Your task to perform on an android device: make emails show in primary in the gmail app Image 0: 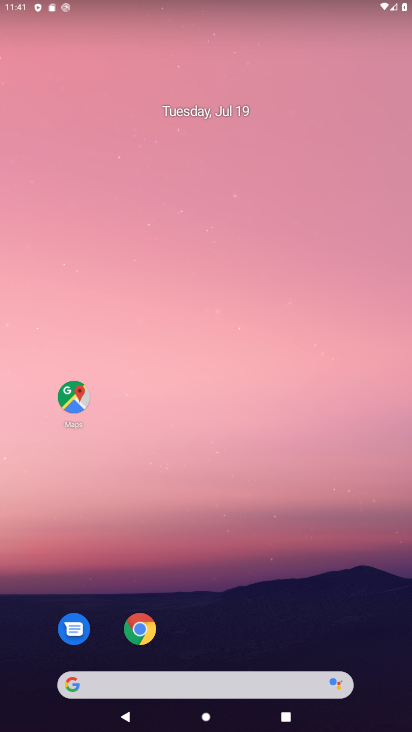
Step 0: drag from (212, 602) to (218, 160)
Your task to perform on an android device: make emails show in primary in the gmail app Image 1: 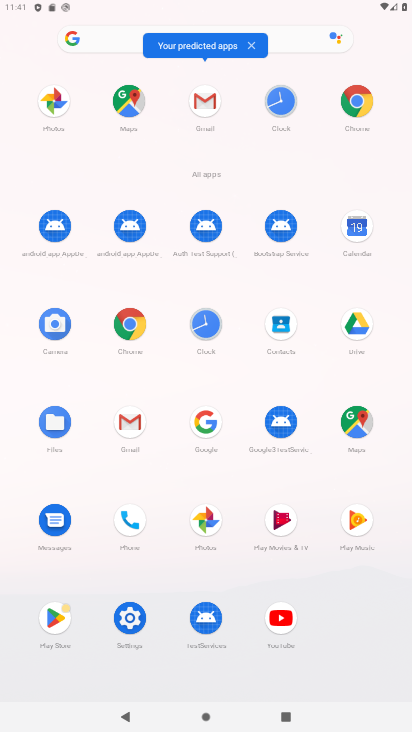
Step 1: click (204, 96)
Your task to perform on an android device: make emails show in primary in the gmail app Image 2: 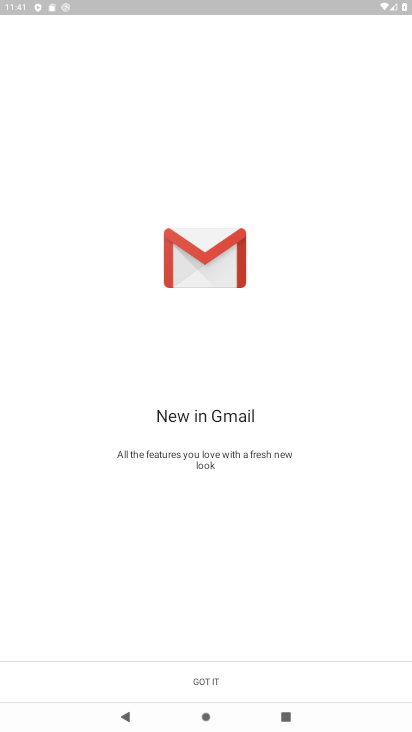
Step 2: click (204, 676)
Your task to perform on an android device: make emails show in primary in the gmail app Image 3: 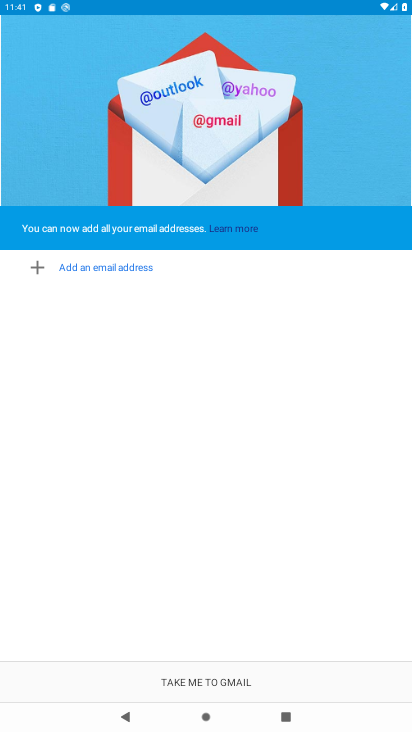
Step 3: click (204, 676)
Your task to perform on an android device: make emails show in primary in the gmail app Image 4: 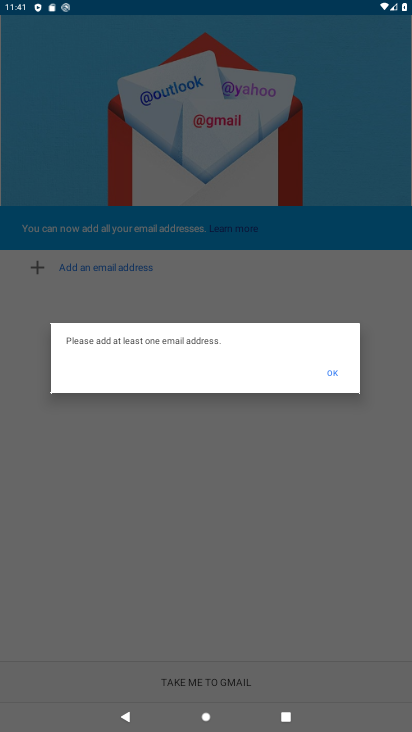
Step 4: click (331, 377)
Your task to perform on an android device: make emails show in primary in the gmail app Image 5: 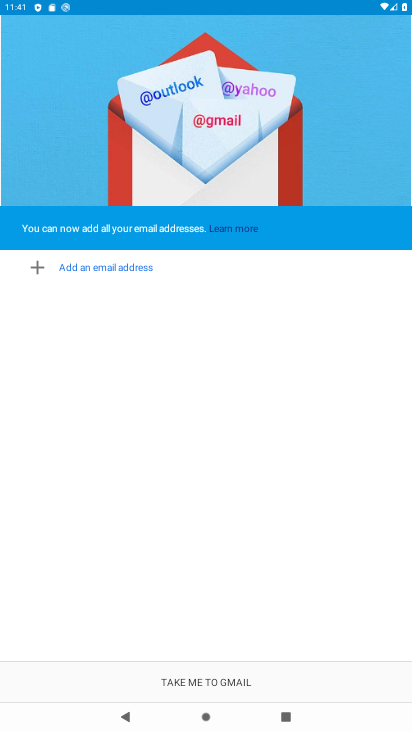
Step 5: click (221, 683)
Your task to perform on an android device: make emails show in primary in the gmail app Image 6: 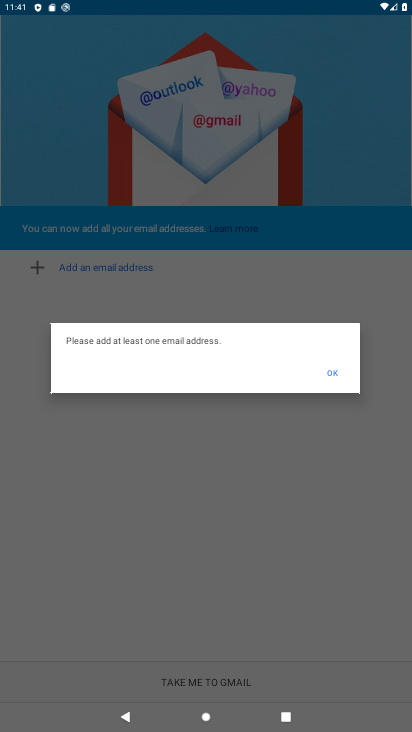
Step 6: click (333, 375)
Your task to perform on an android device: make emails show in primary in the gmail app Image 7: 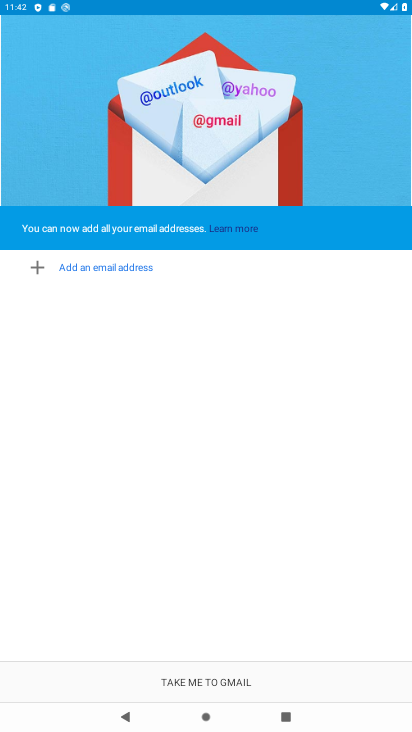
Step 7: task complete